Your task to perform on an android device: Go to battery settings Image 0: 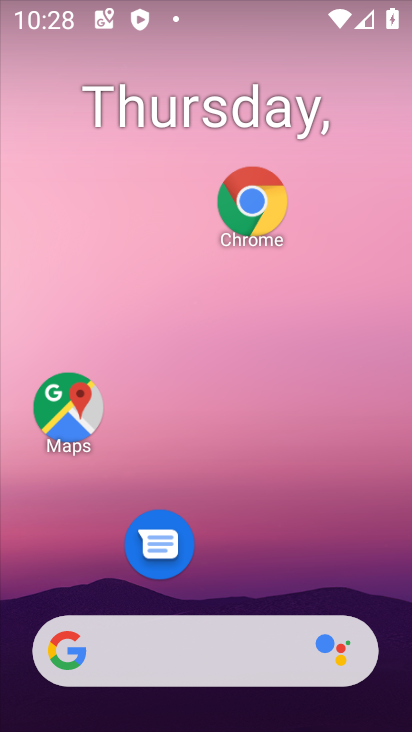
Step 0: drag from (208, 597) to (206, 77)
Your task to perform on an android device: Go to battery settings Image 1: 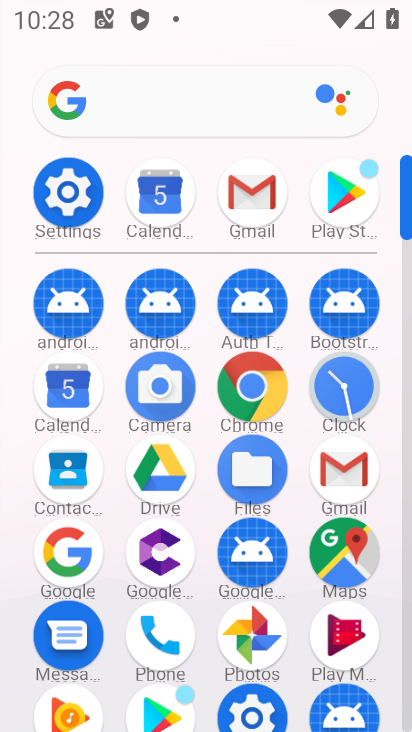
Step 1: click (67, 185)
Your task to perform on an android device: Go to battery settings Image 2: 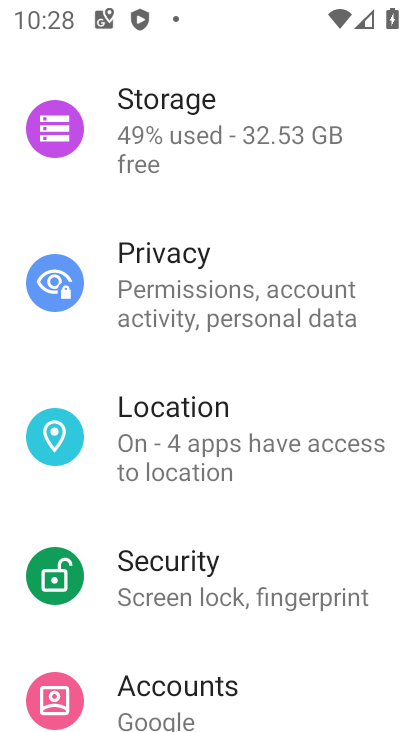
Step 2: drag from (95, 119) to (112, 605)
Your task to perform on an android device: Go to battery settings Image 3: 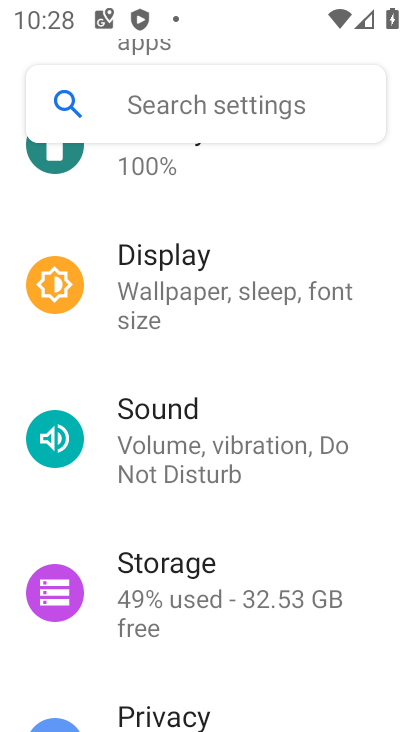
Step 3: click (94, 159)
Your task to perform on an android device: Go to battery settings Image 4: 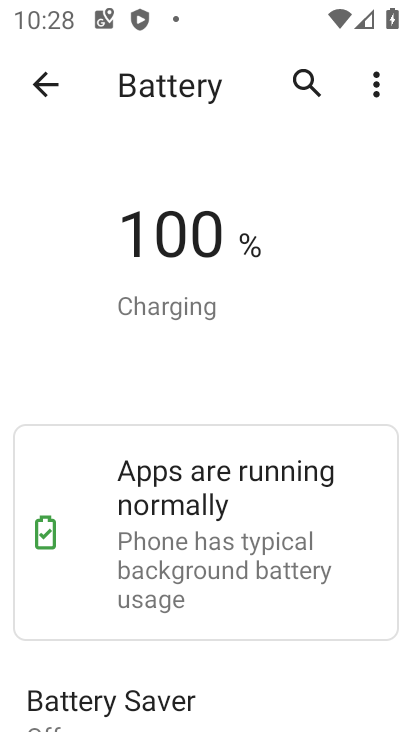
Step 4: task complete